Your task to perform on an android device: turn on notifications settings in the gmail app Image 0: 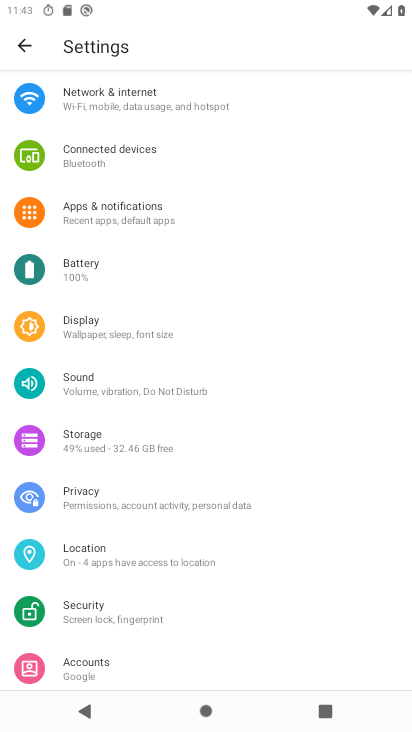
Step 0: press home button
Your task to perform on an android device: turn on notifications settings in the gmail app Image 1: 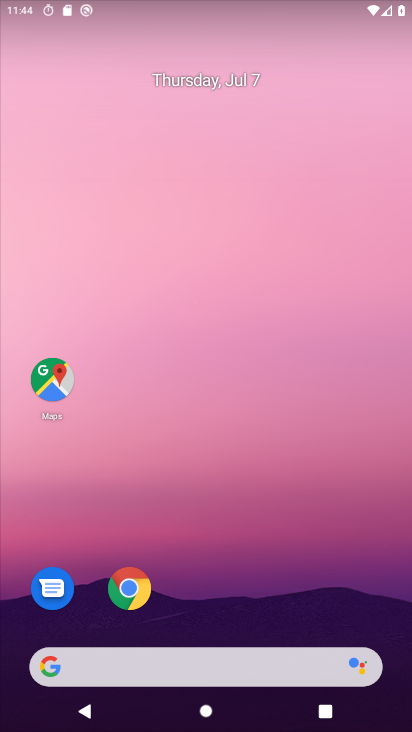
Step 1: drag from (114, 678) to (252, 124)
Your task to perform on an android device: turn on notifications settings in the gmail app Image 2: 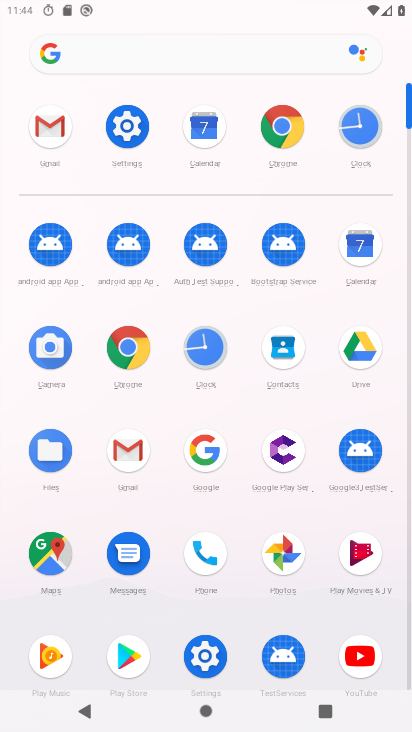
Step 2: click (53, 131)
Your task to perform on an android device: turn on notifications settings in the gmail app Image 3: 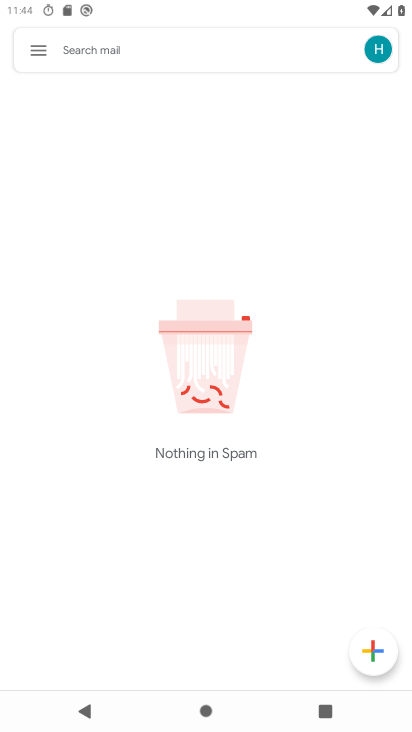
Step 3: click (38, 45)
Your task to perform on an android device: turn on notifications settings in the gmail app Image 4: 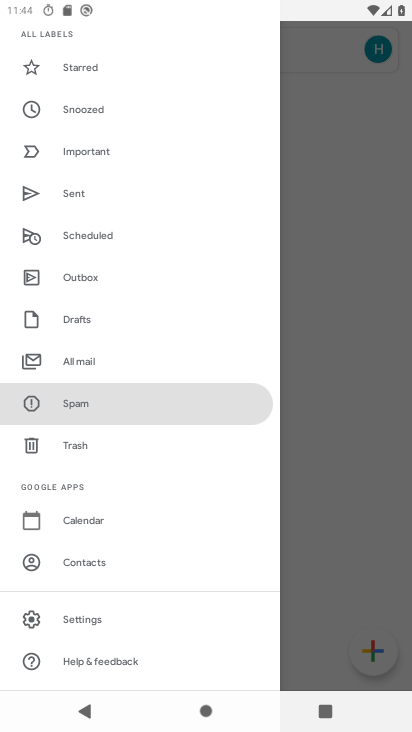
Step 4: click (94, 614)
Your task to perform on an android device: turn on notifications settings in the gmail app Image 5: 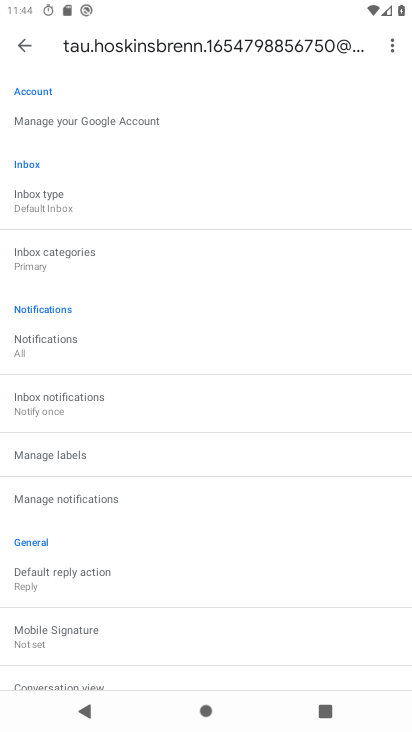
Step 5: click (68, 343)
Your task to perform on an android device: turn on notifications settings in the gmail app Image 6: 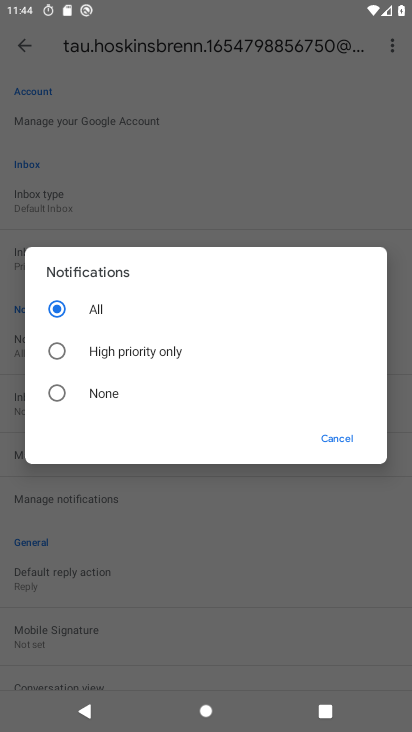
Step 6: task complete